Your task to perform on an android device: Go to eBay Image 0: 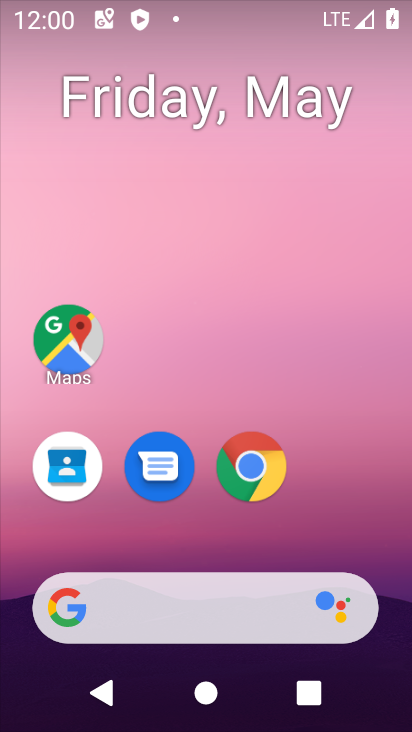
Step 0: click (243, 468)
Your task to perform on an android device: Go to eBay Image 1: 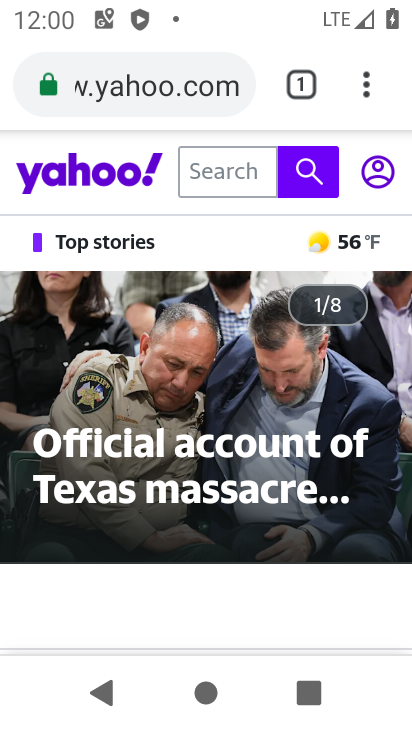
Step 1: press back button
Your task to perform on an android device: Go to eBay Image 2: 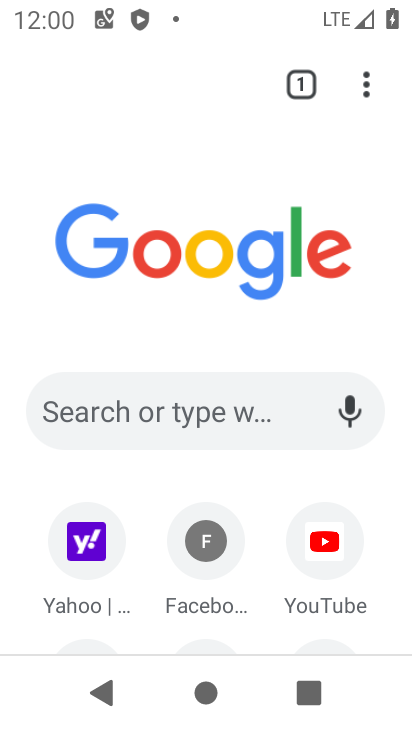
Step 2: drag from (265, 576) to (227, 372)
Your task to perform on an android device: Go to eBay Image 3: 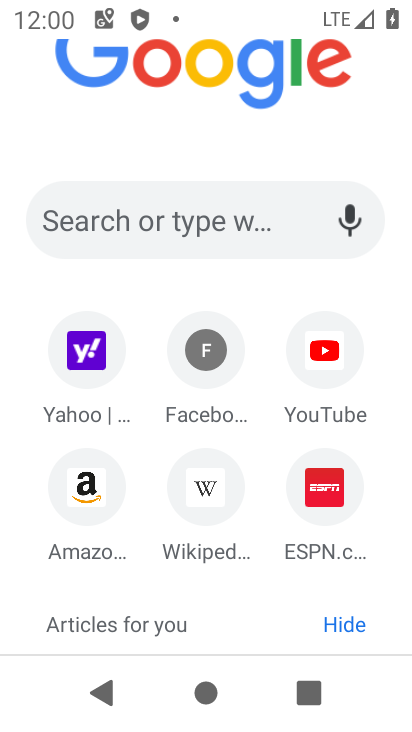
Step 3: click (184, 203)
Your task to perform on an android device: Go to eBay Image 4: 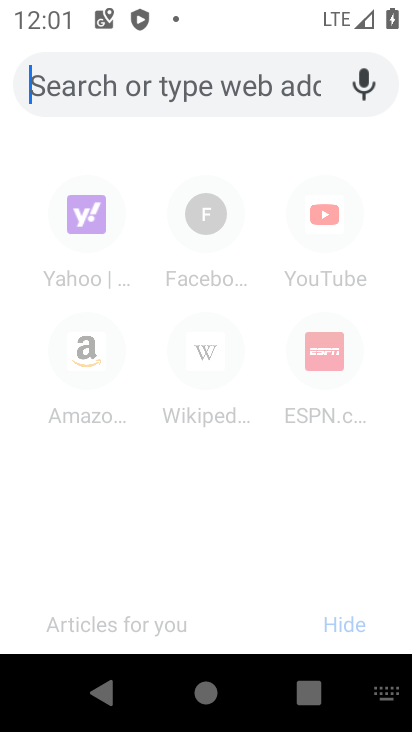
Step 4: type "www.ebay.com"
Your task to perform on an android device: Go to eBay Image 5: 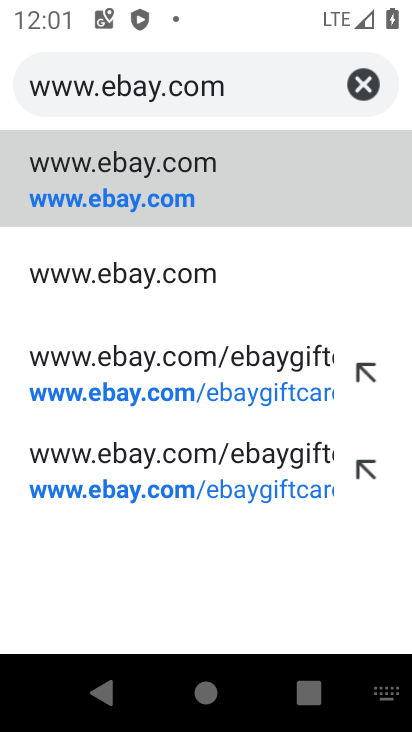
Step 5: click (120, 188)
Your task to perform on an android device: Go to eBay Image 6: 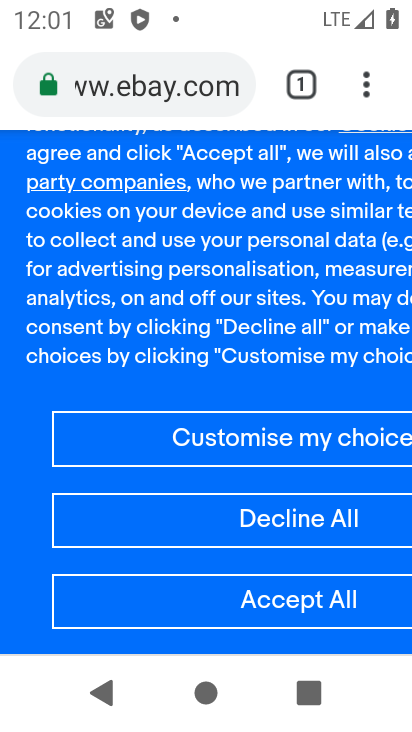
Step 6: task complete